Your task to perform on an android device: check out phone information Image 0: 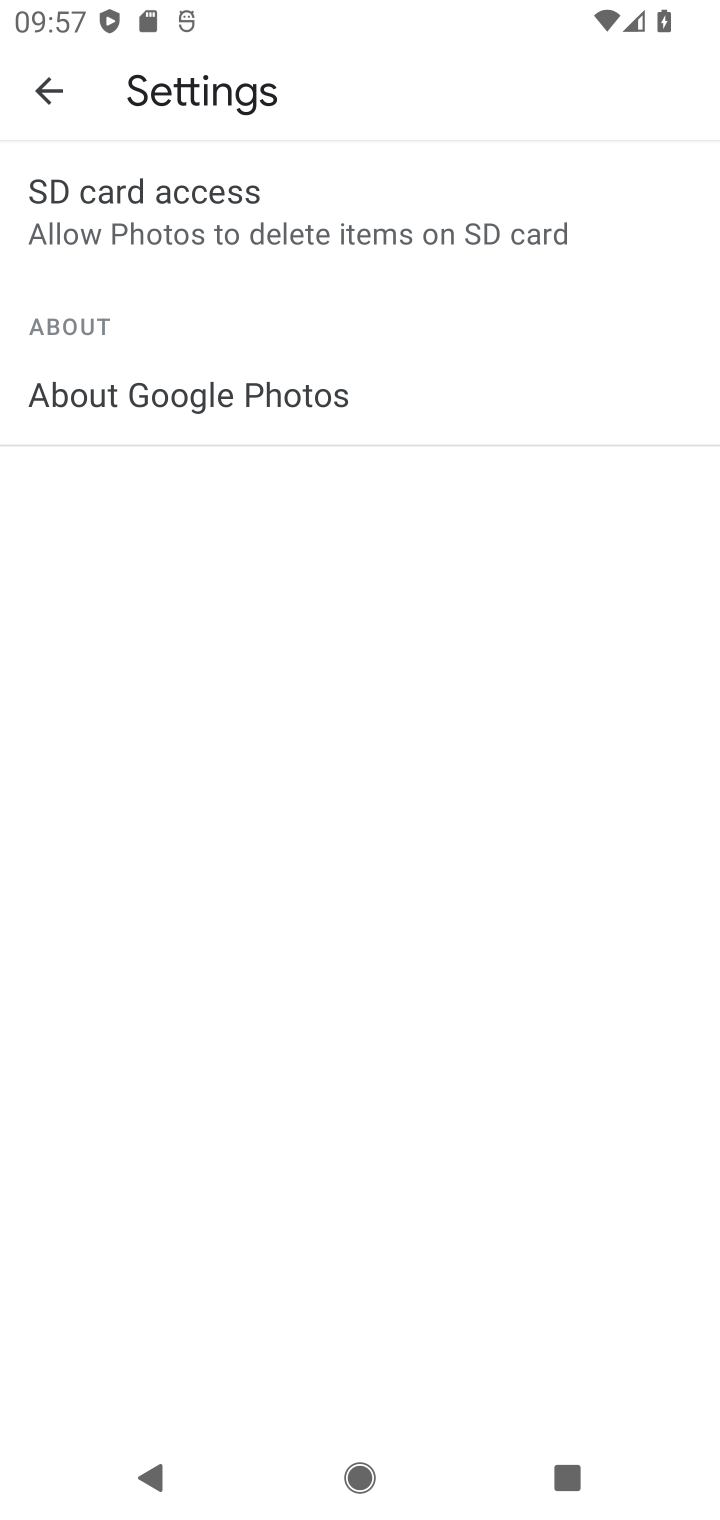
Step 0: press back button
Your task to perform on an android device: check out phone information Image 1: 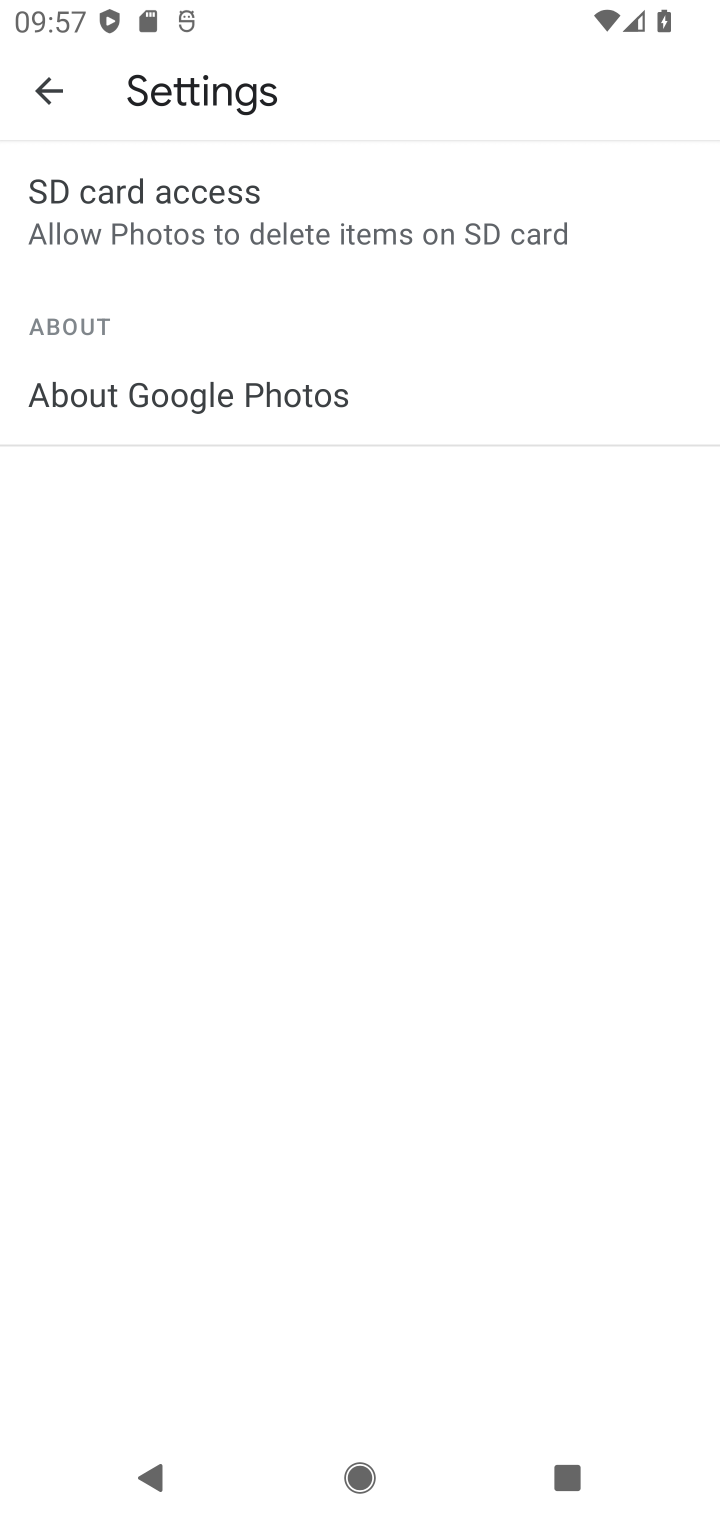
Step 1: press home button
Your task to perform on an android device: check out phone information Image 2: 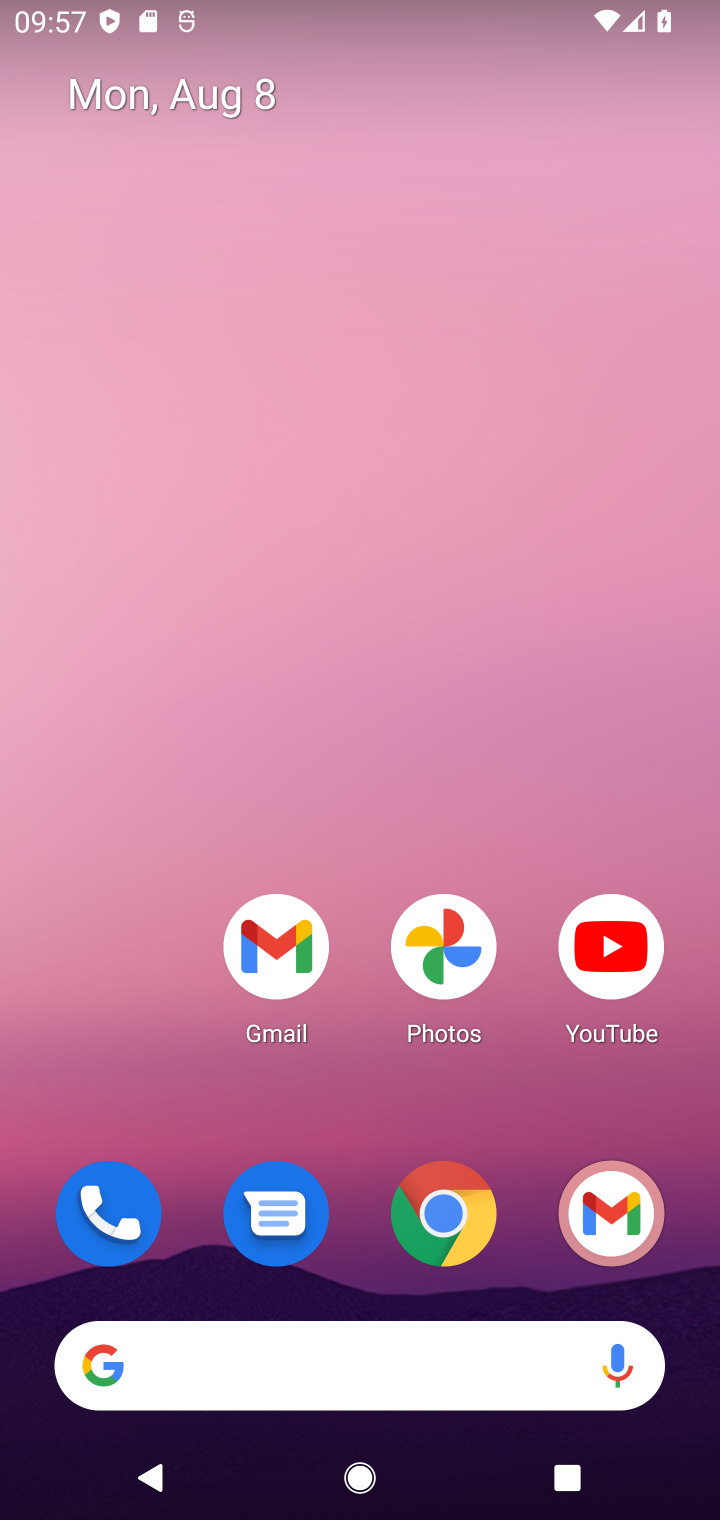
Step 2: drag from (382, 1088) to (338, 218)
Your task to perform on an android device: check out phone information Image 3: 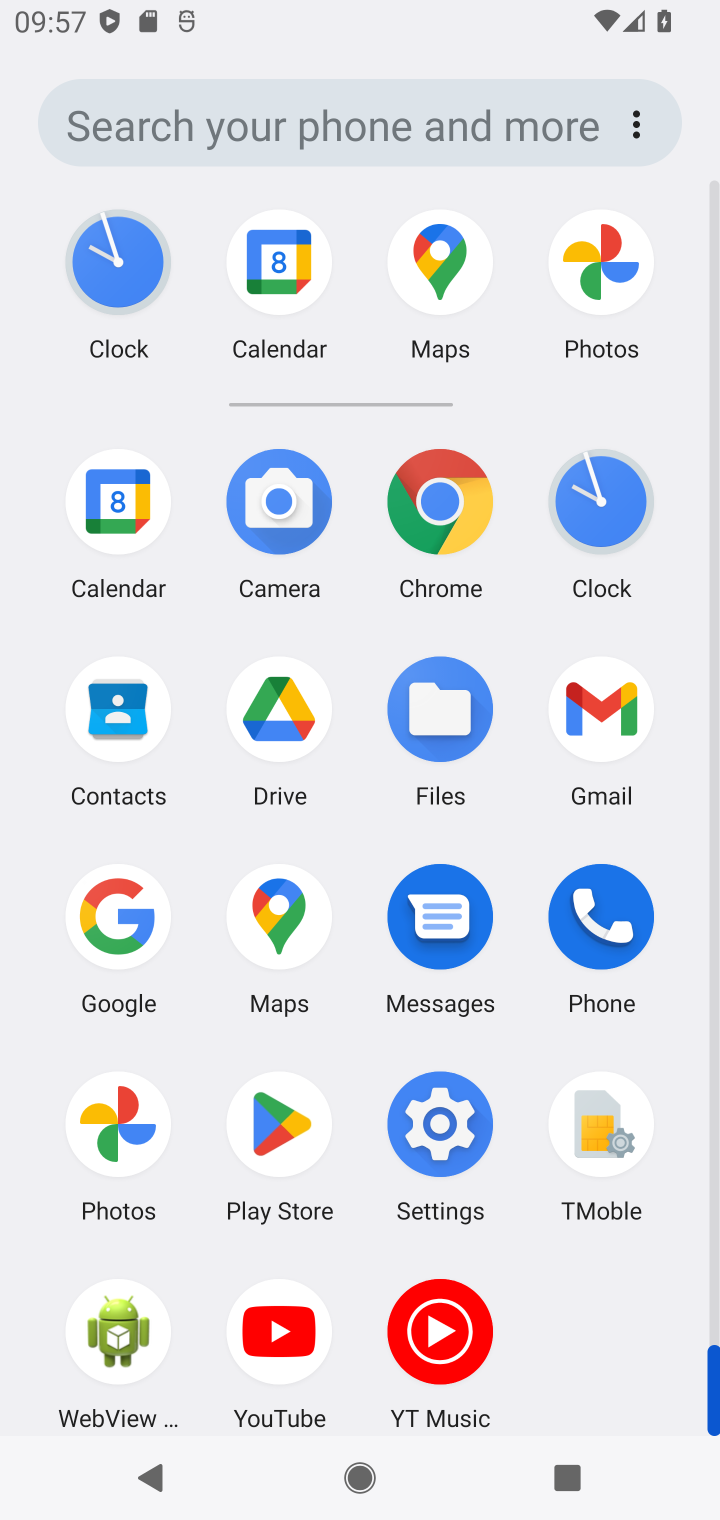
Step 3: click (461, 1104)
Your task to perform on an android device: check out phone information Image 4: 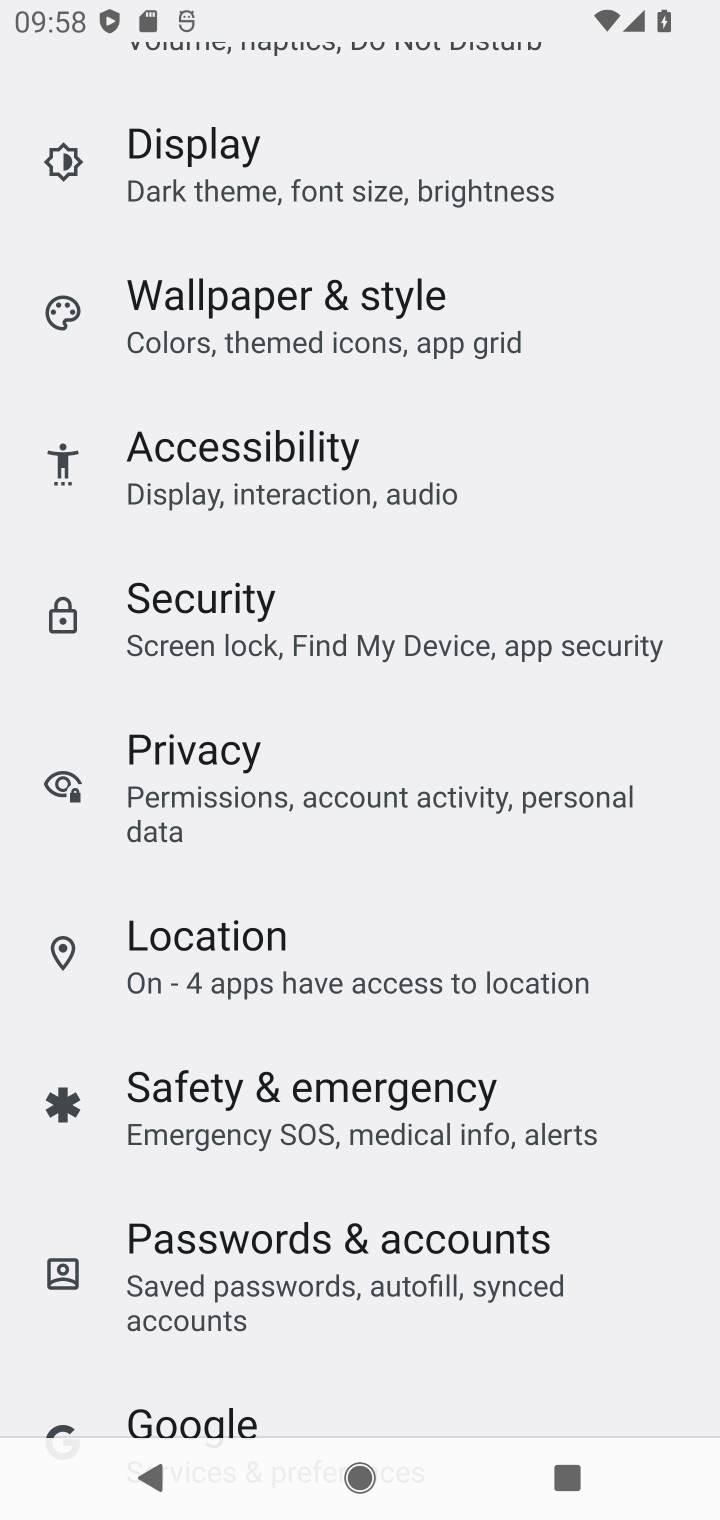
Step 4: drag from (263, 962) to (267, 363)
Your task to perform on an android device: check out phone information Image 5: 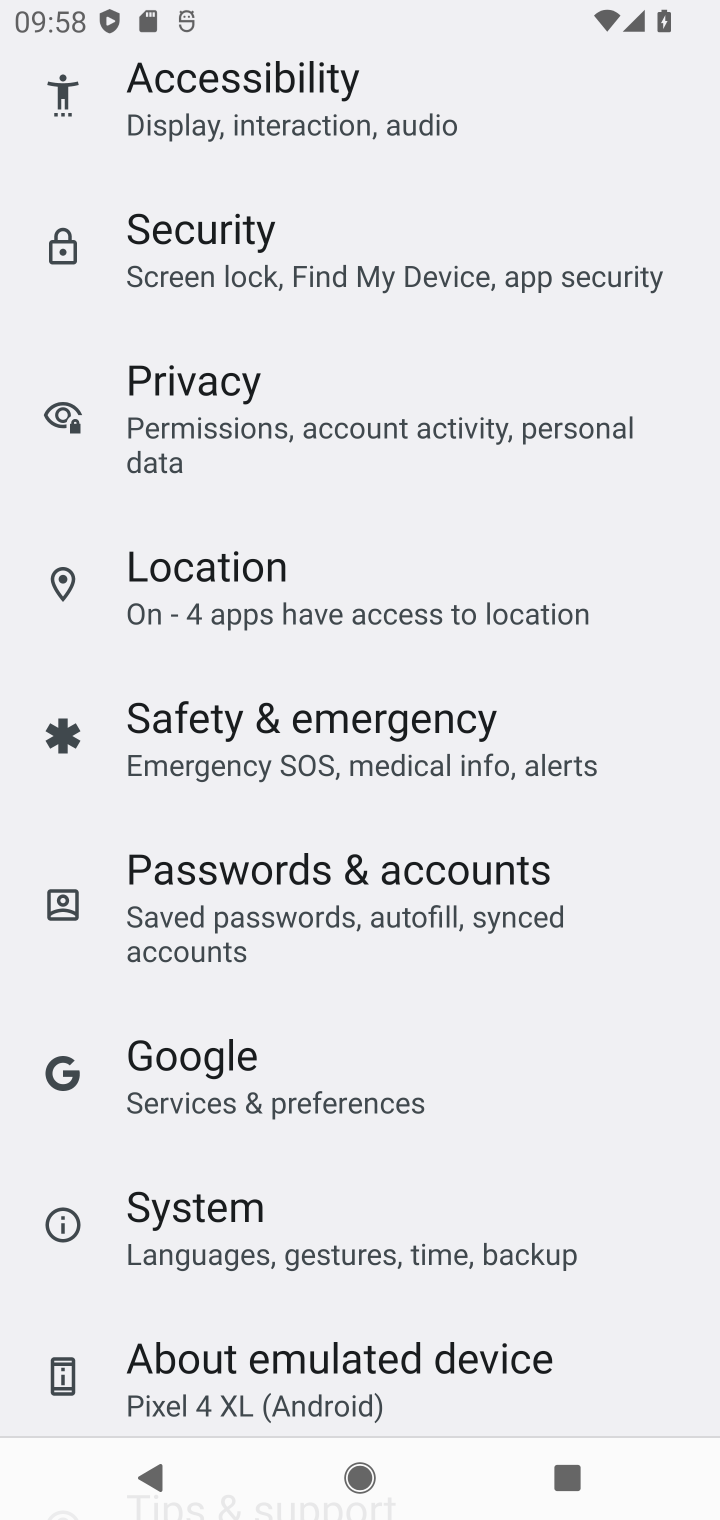
Step 5: click (362, 1386)
Your task to perform on an android device: check out phone information Image 6: 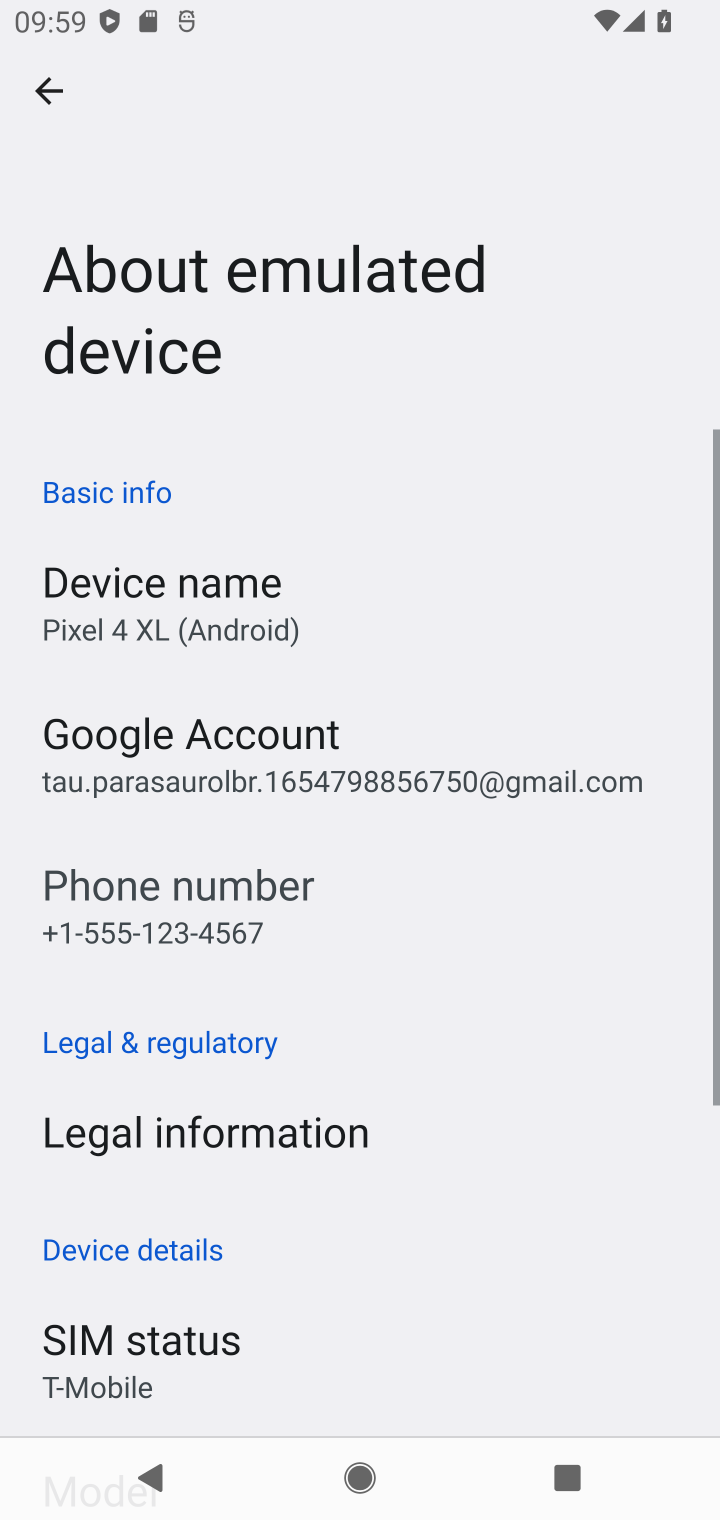
Step 6: task complete